Your task to perform on an android device: turn vacation reply on in the gmail app Image 0: 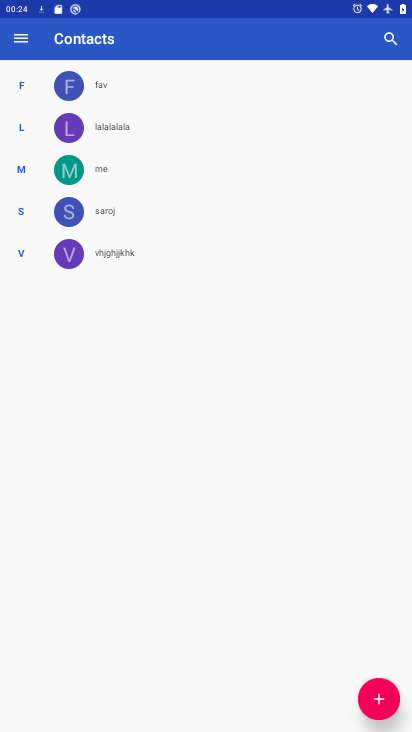
Step 0: press home button
Your task to perform on an android device: turn vacation reply on in the gmail app Image 1: 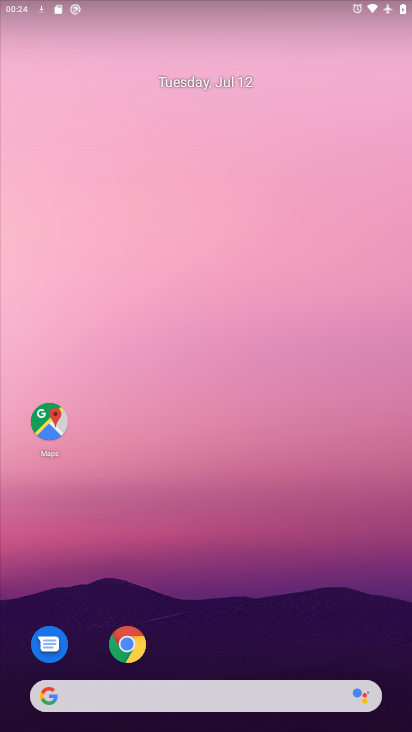
Step 1: drag from (264, 596) to (273, 63)
Your task to perform on an android device: turn vacation reply on in the gmail app Image 2: 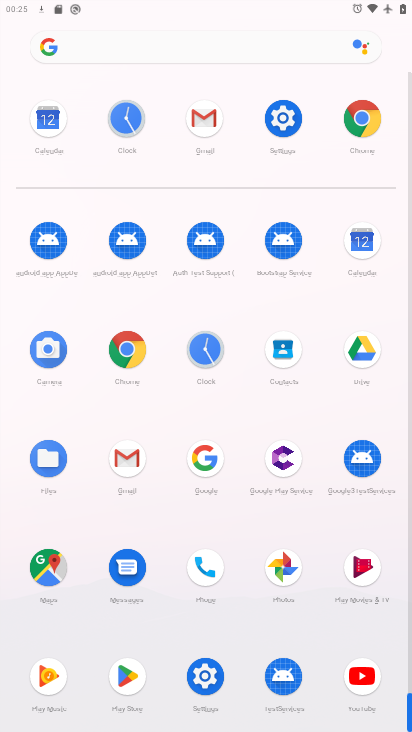
Step 2: click (186, 119)
Your task to perform on an android device: turn vacation reply on in the gmail app Image 3: 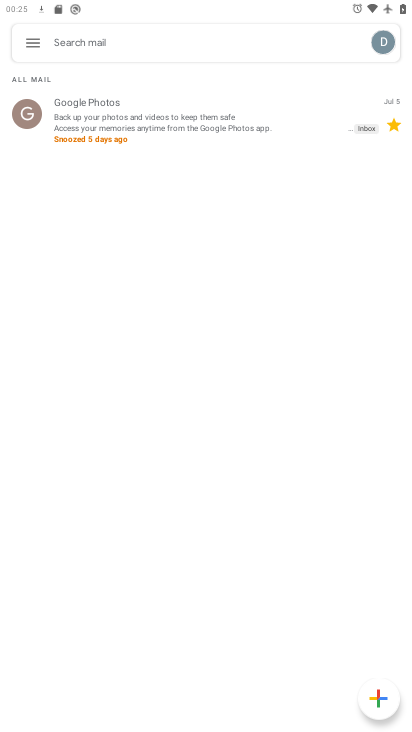
Step 3: click (41, 43)
Your task to perform on an android device: turn vacation reply on in the gmail app Image 4: 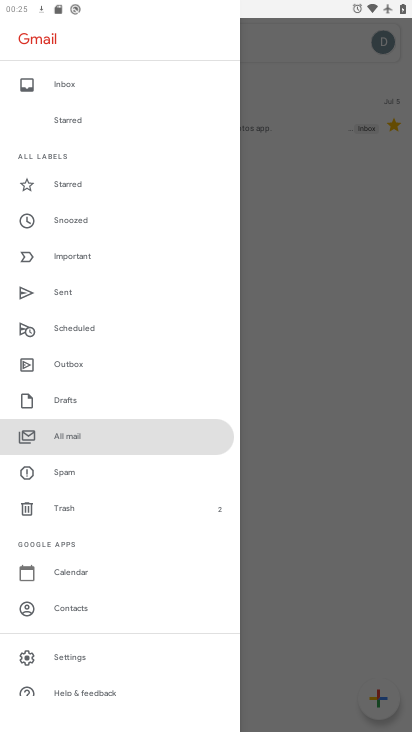
Step 4: click (75, 659)
Your task to perform on an android device: turn vacation reply on in the gmail app Image 5: 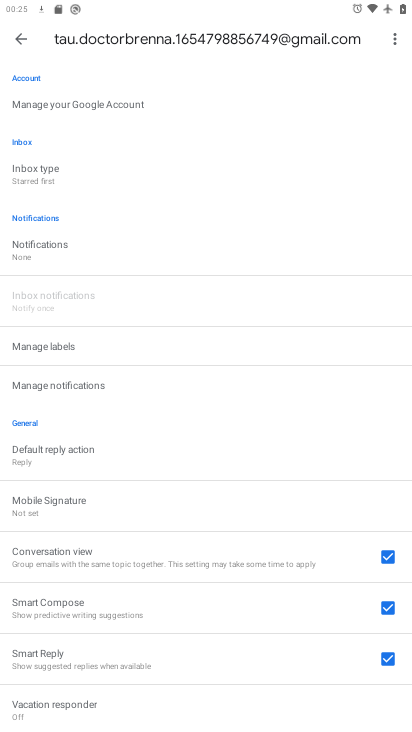
Step 5: click (130, 694)
Your task to perform on an android device: turn vacation reply on in the gmail app Image 6: 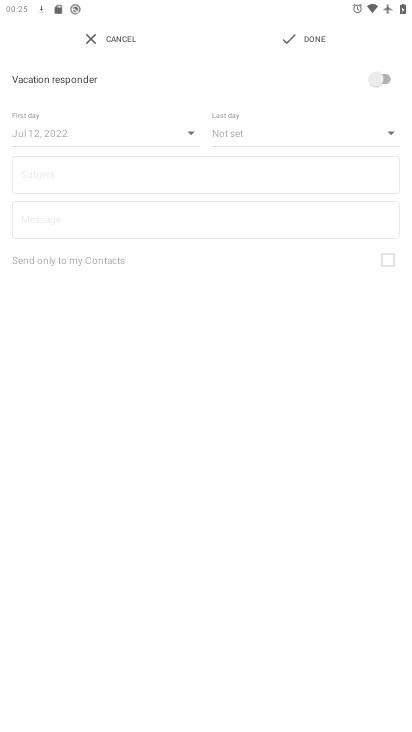
Step 6: click (378, 81)
Your task to perform on an android device: turn vacation reply on in the gmail app Image 7: 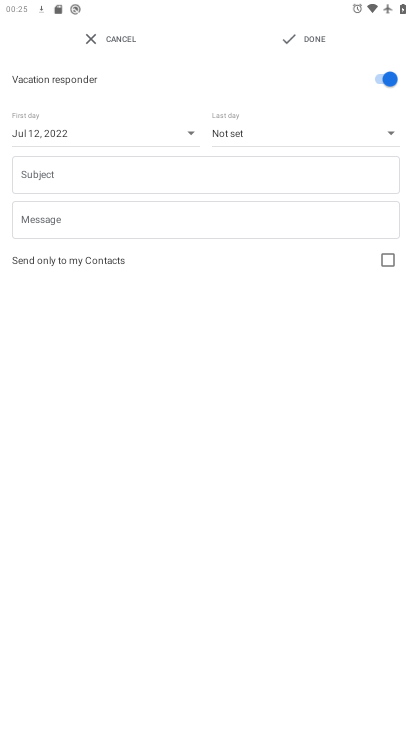
Step 7: task complete